Your task to perform on an android device: set the timer Image 0: 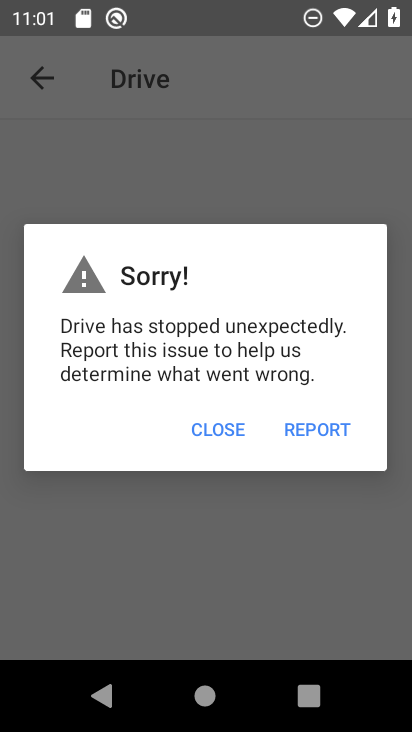
Step 0: press home button
Your task to perform on an android device: set the timer Image 1: 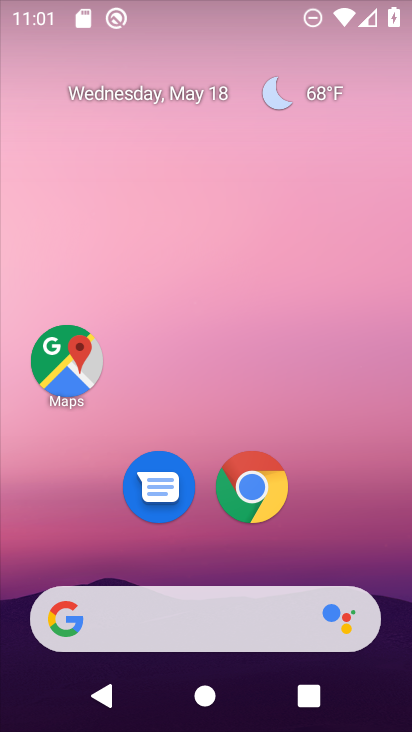
Step 1: drag from (376, 527) to (357, 173)
Your task to perform on an android device: set the timer Image 2: 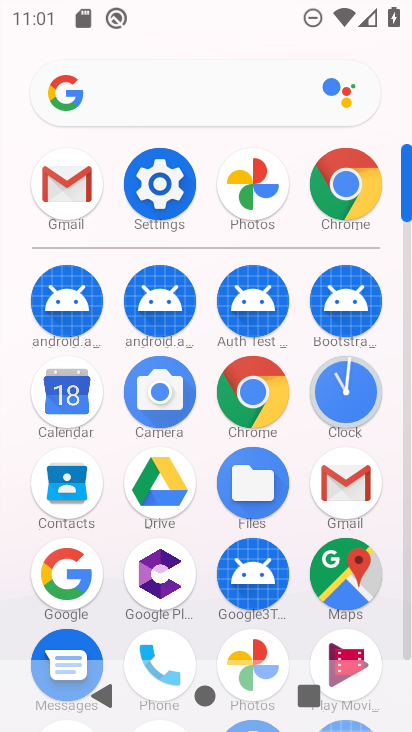
Step 2: click (370, 410)
Your task to perform on an android device: set the timer Image 3: 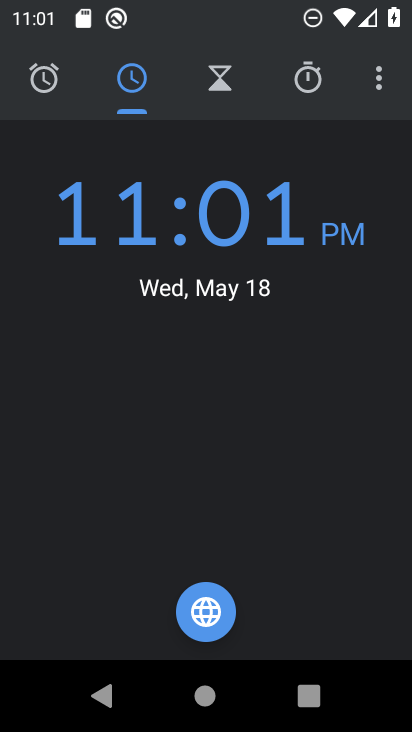
Step 3: click (236, 91)
Your task to perform on an android device: set the timer Image 4: 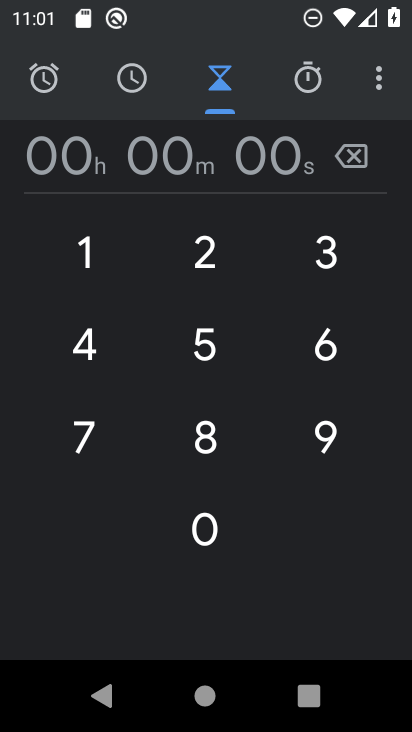
Step 4: click (86, 263)
Your task to perform on an android device: set the timer Image 5: 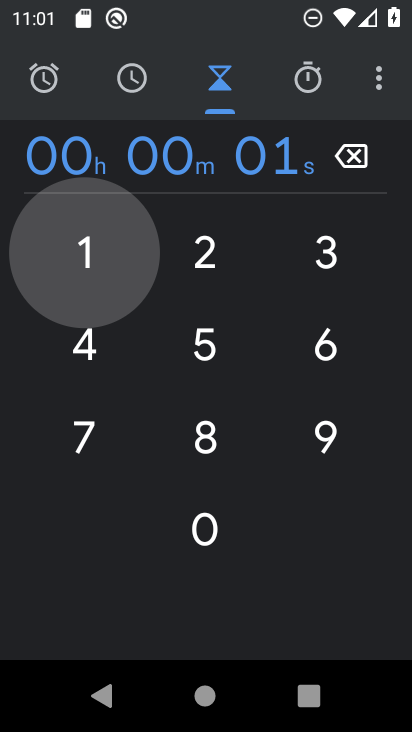
Step 5: click (193, 321)
Your task to perform on an android device: set the timer Image 6: 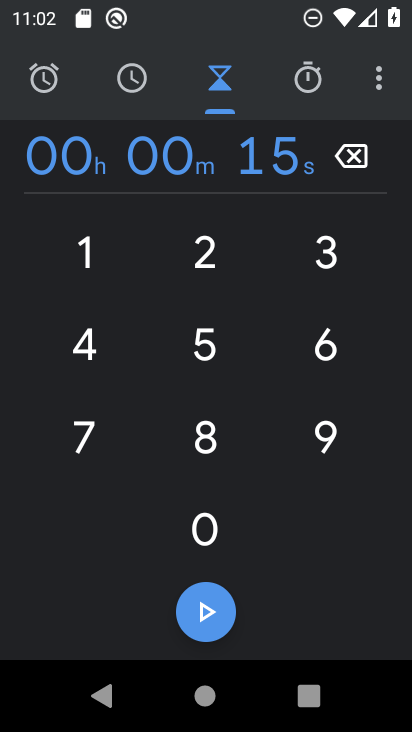
Step 6: click (197, 609)
Your task to perform on an android device: set the timer Image 7: 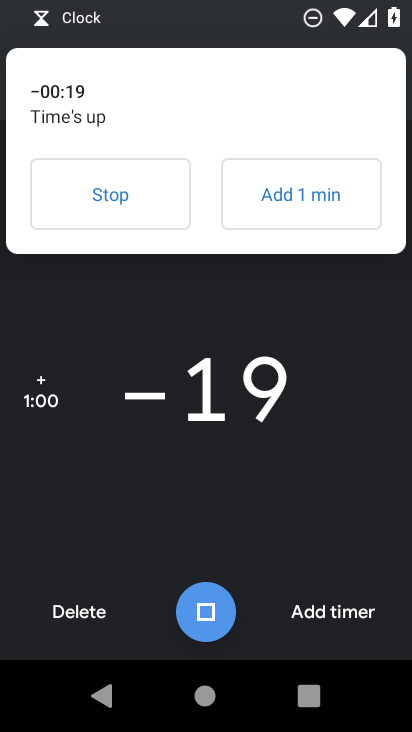
Step 7: click (113, 200)
Your task to perform on an android device: set the timer Image 8: 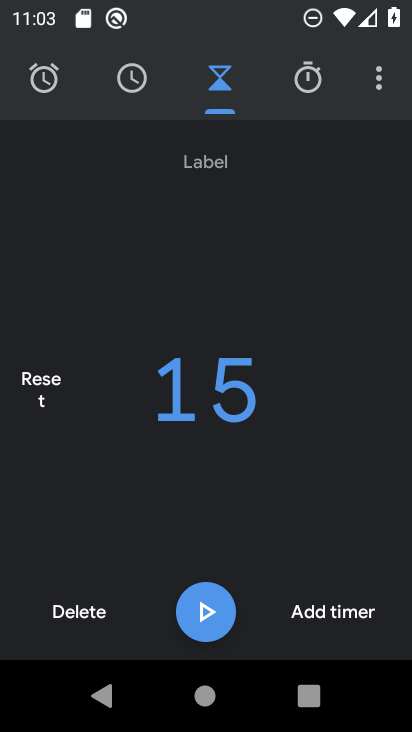
Step 8: task complete